Your task to perform on an android device: Go to accessibility settings Image 0: 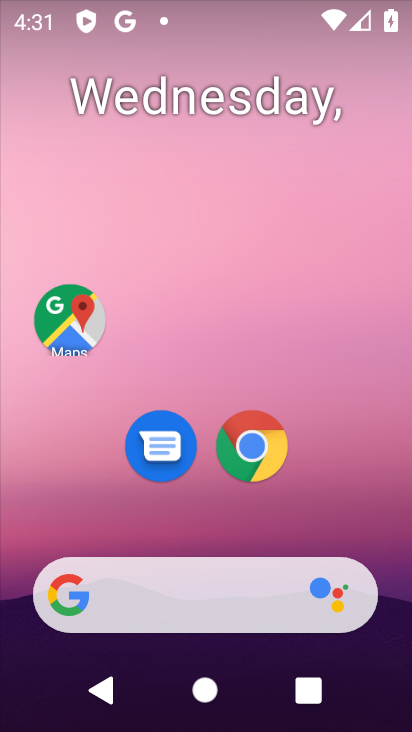
Step 0: drag from (107, 538) to (213, 81)
Your task to perform on an android device: Go to accessibility settings Image 1: 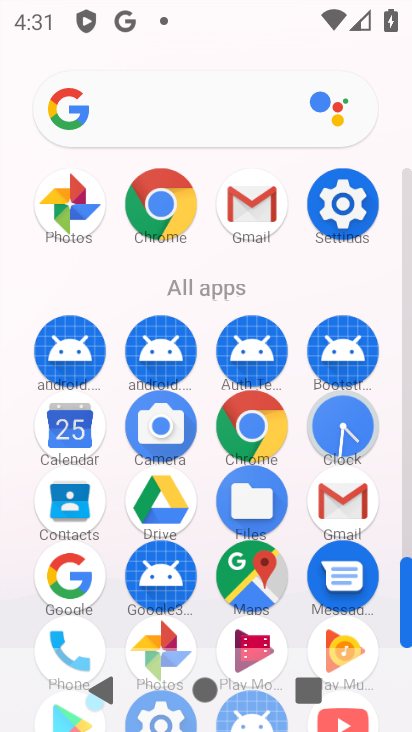
Step 1: drag from (144, 588) to (235, 319)
Your task to perform on an android device: Go to accessibility settings Image 2: 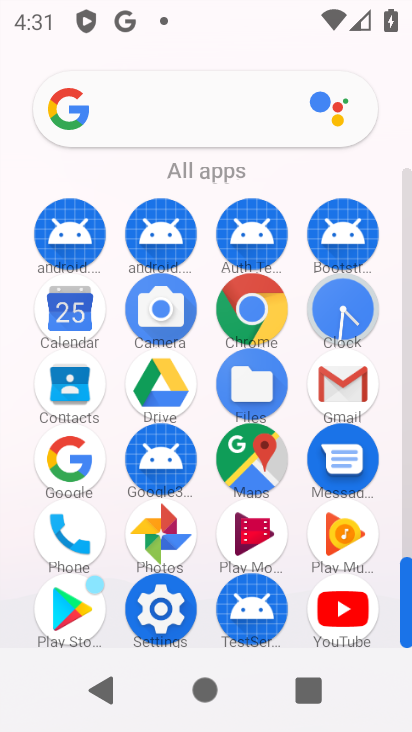
Step 2: click (163, 621)
Your task to perform on an android device: Go to accessibility settings Image 3: 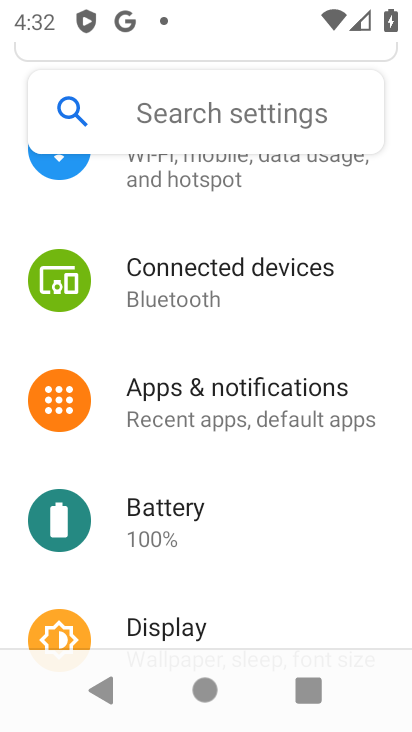
Step 3: drag from (179, 636) to (366, 124)
Your task to perform on an android device: Go to accessibility settings Image 4: 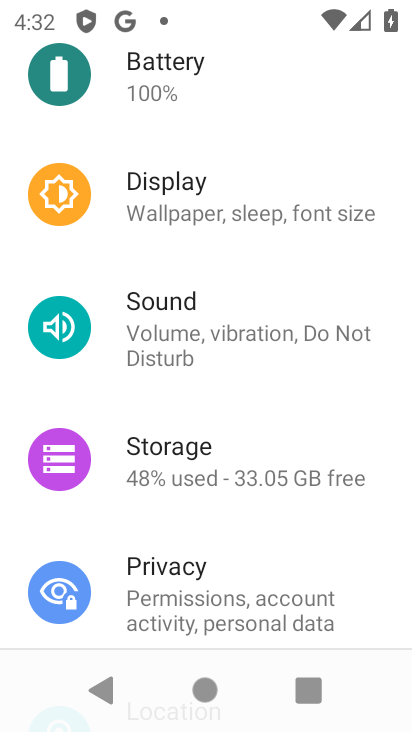
Step 4: drag from (229, 706) to (384, 180)
Your task to perform on an android device: Go to accessibility settings Image 5: 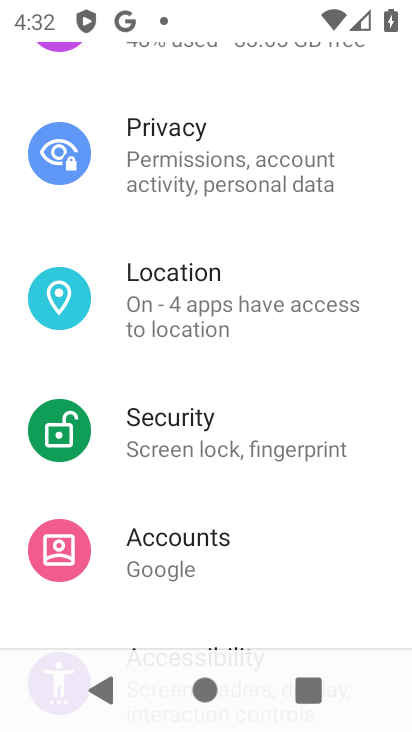
Step 5: drag from (202, 604) to (267, 306)
Your task to perform on an android device: Go to accessibility settings Image 6: 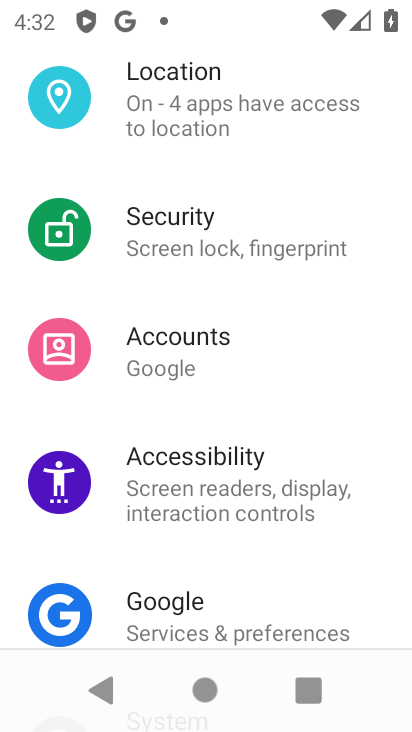
Step 6: click (205, 518)
Your task to perform on an android device: Go to accessibility settings Image 7: 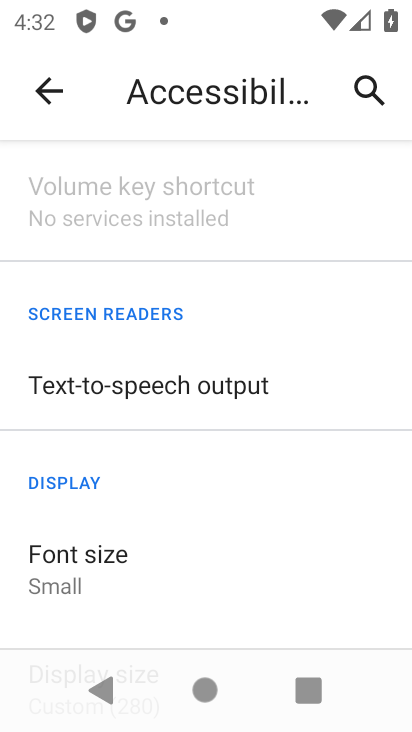
Step 7: task complete